Your task to perform on an android device: Show me some nice wallpapers for my desktop Image 0: 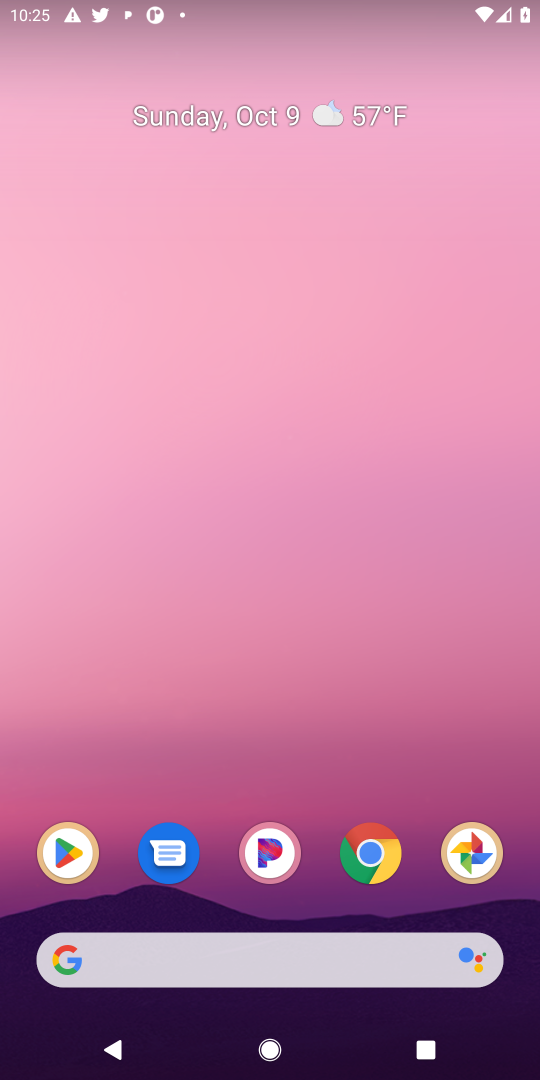
Step 0: click (375, 861)
Your task to perform on an android device: Show me some nice wallpapers for my desktop Image 1: 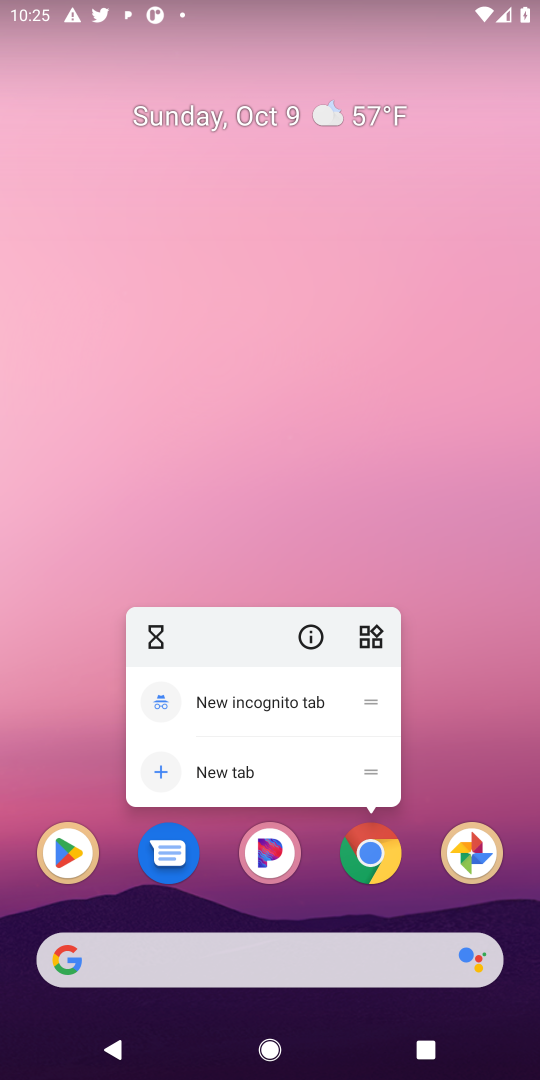
Step 1: click (312, 949)
Your task to perform on an android device: Show me some nice wallpapers for my desktop Image 2: 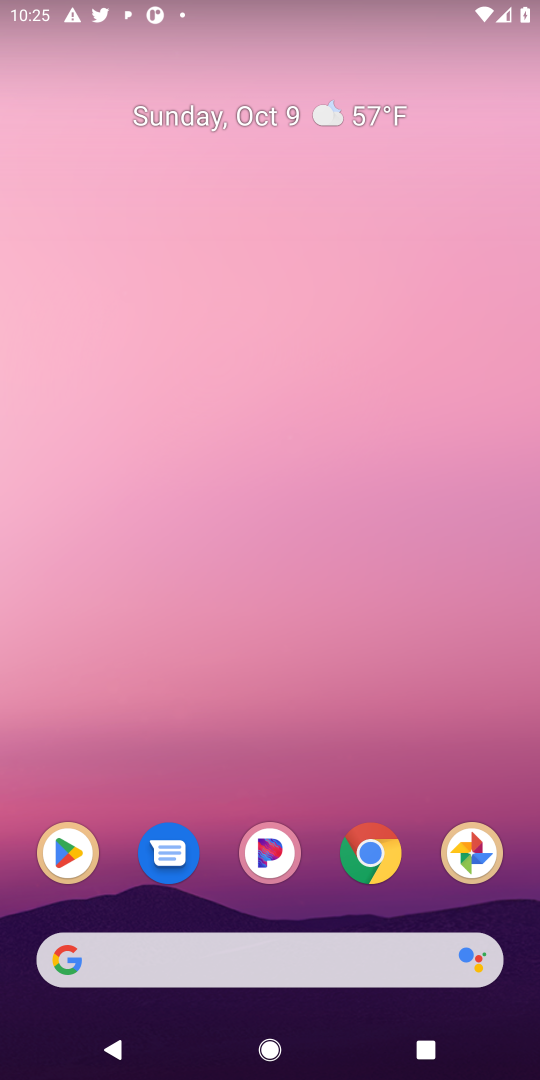
Step 2: click (318, 949)
Your task to perform on an android device: Show me some nice wallpapers for my desktop Image 3: 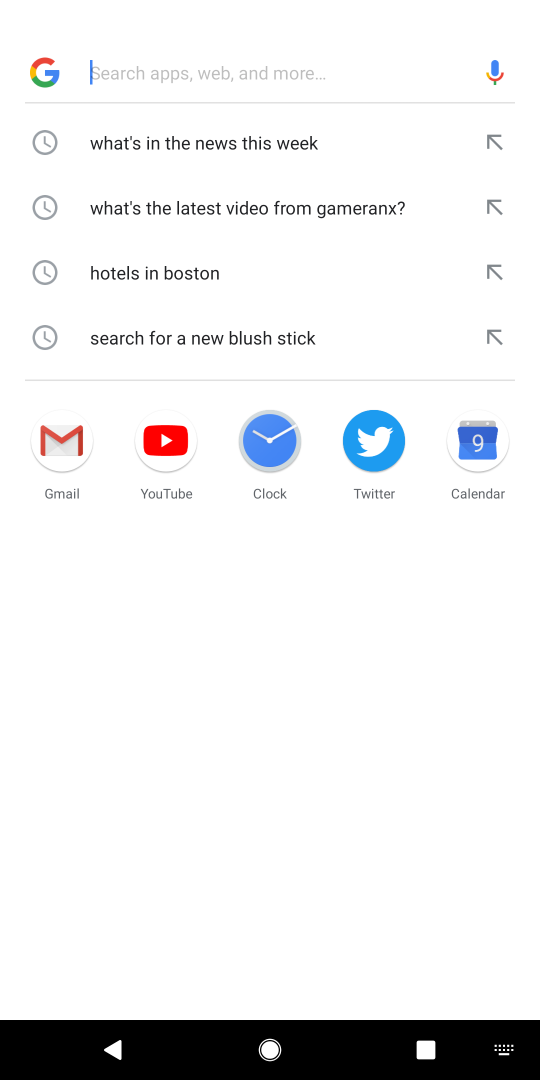
Step 3: type "Show me some nice wallpapers for my desktop"
Your task to perform on an android device: Show me some nice wallpapers for my desktop Image 4: 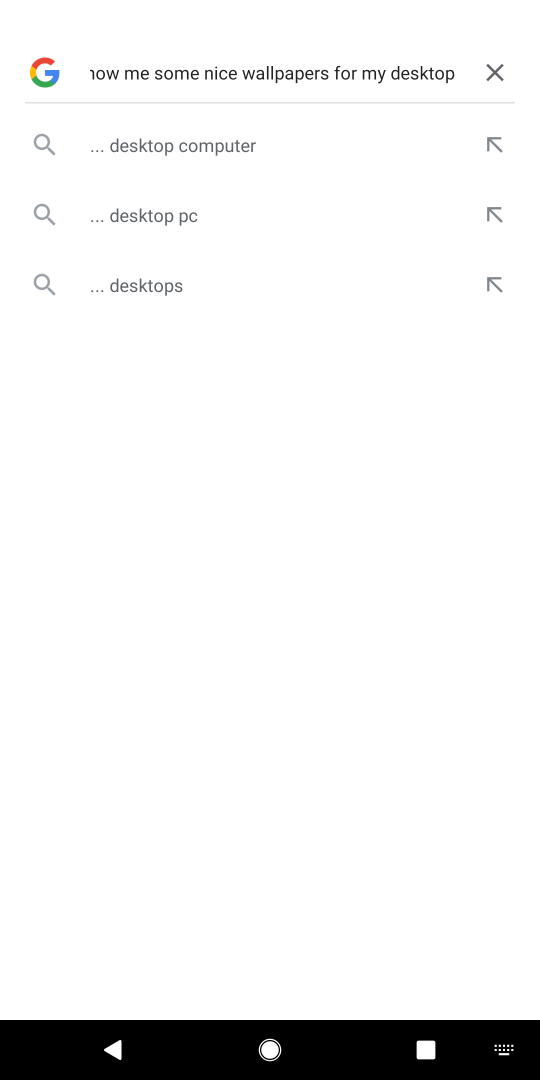
Step 4: type ""
Your task to perform on an android device: Show me some nice wallpapers for my desktop Image 5: 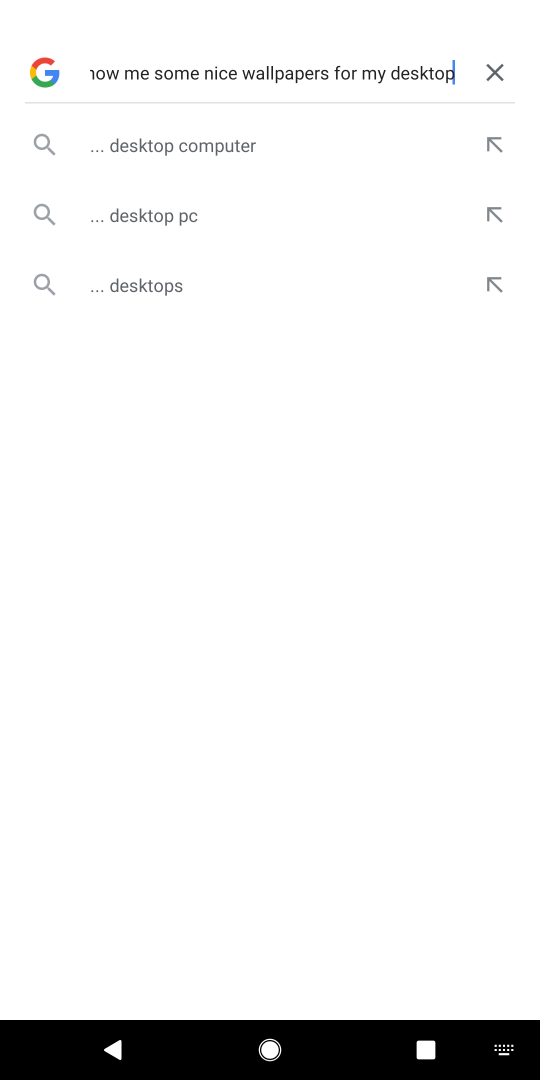
Step 5: press enter
Your task to perform on an android device: Show me some nice wallpapers for my desktop Image 6: 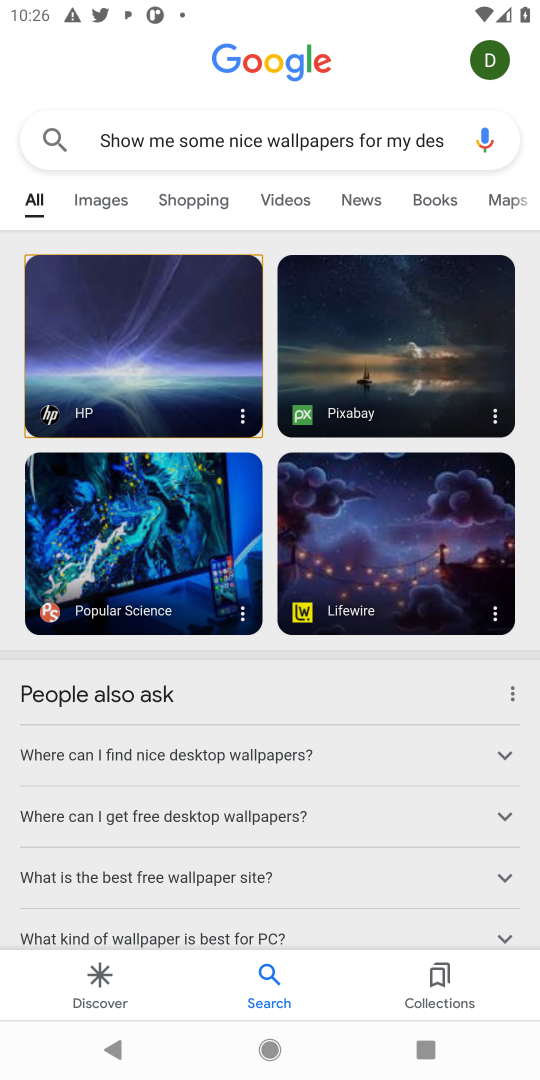
Step 6: click (218, 359)
Your task to perform on an android device: Show me some nice wallpapers for my desktop Image 7: 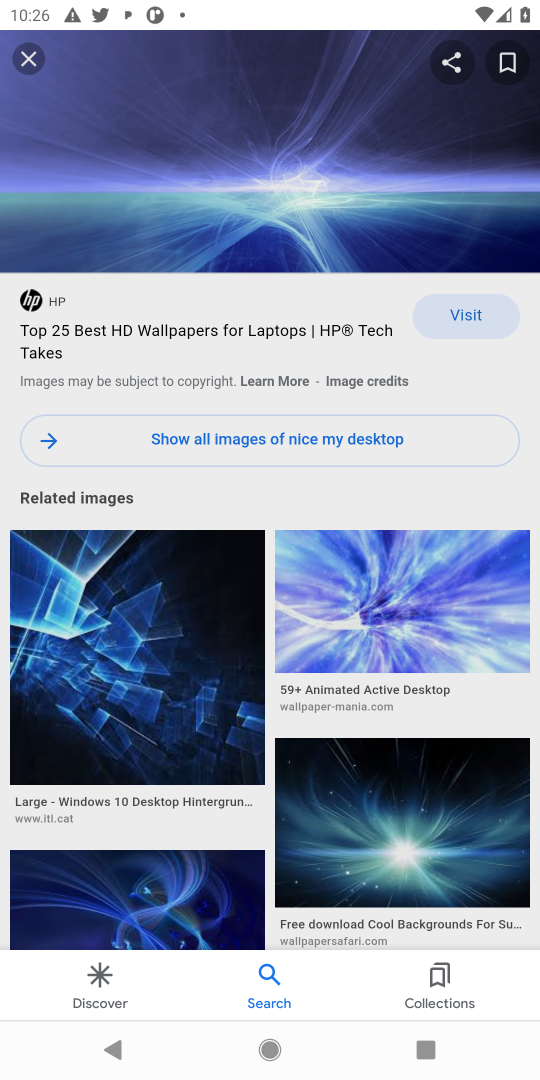
Step 7: click (279, 410)
Your task to perform on an android device: Show me some nice wallpapers for my desktop Image 8: 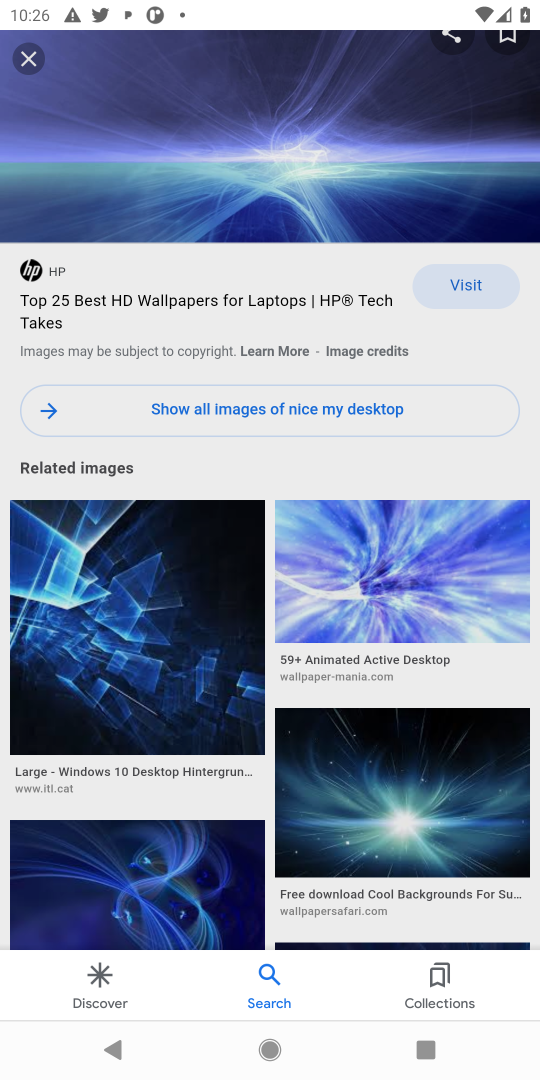
Step 8: click (185, 521)
Your task to perform on an android device: Show me some nice wallpapers for my desktop Image 9: 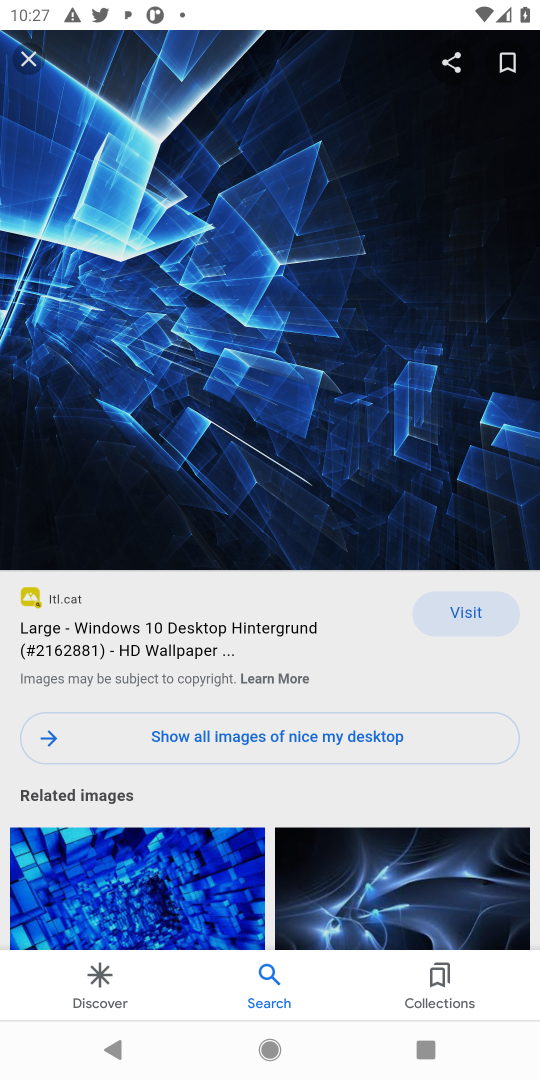
Step 9: drag from (330, 353) to (360, 168)
Your task to perform on an android device: Show me some nice wallpapers for my desktop Image 10: 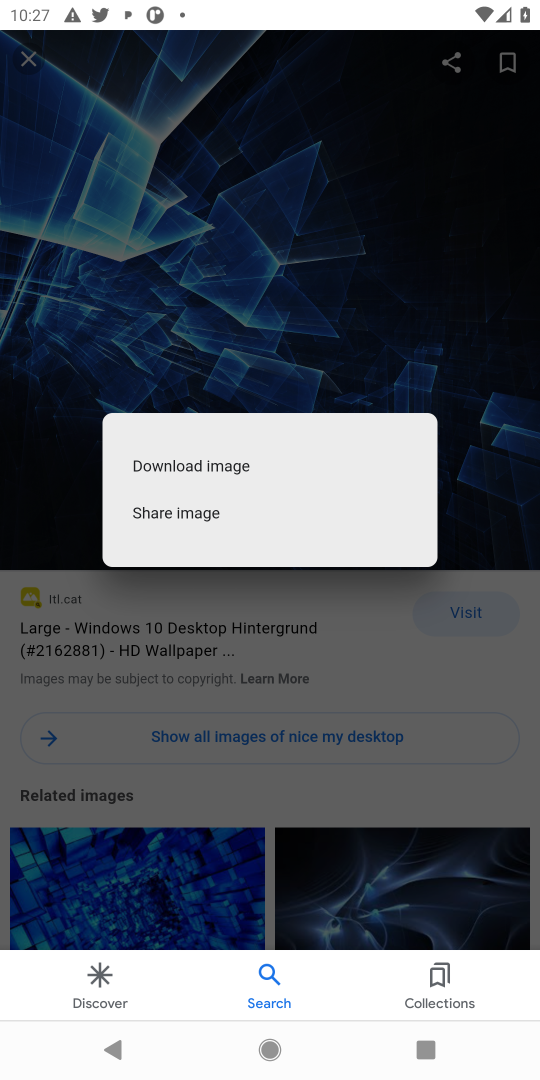
Step 10: drag from (393, 694) to (364, 289)
Your task to perform on an android device: Show me some nice wallpapers for my desktop Image 11: 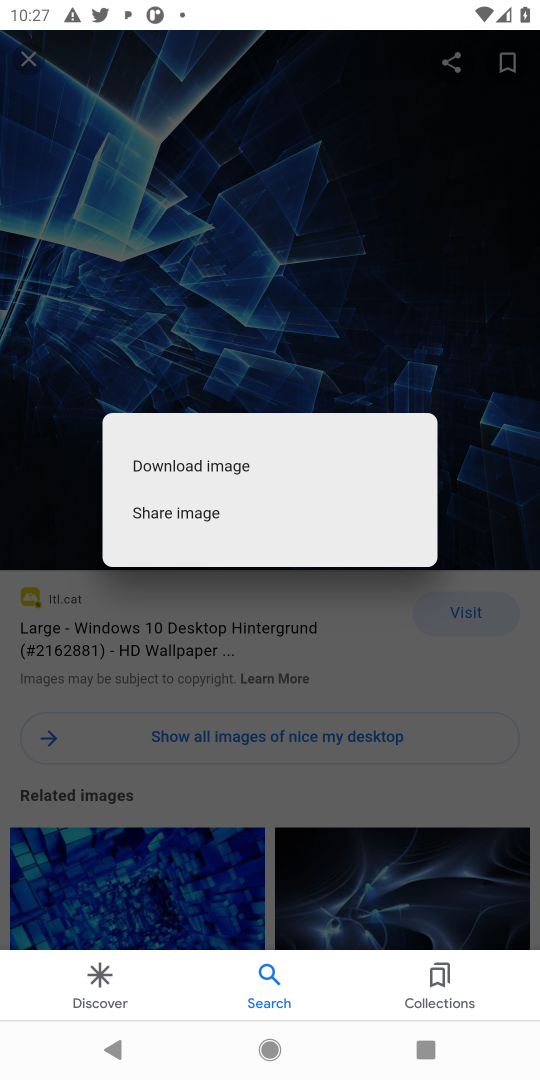
Step 11: click (364, 289)
Your task to perform on an android device: Show me some nice wallpapers for my desktop Image 12: 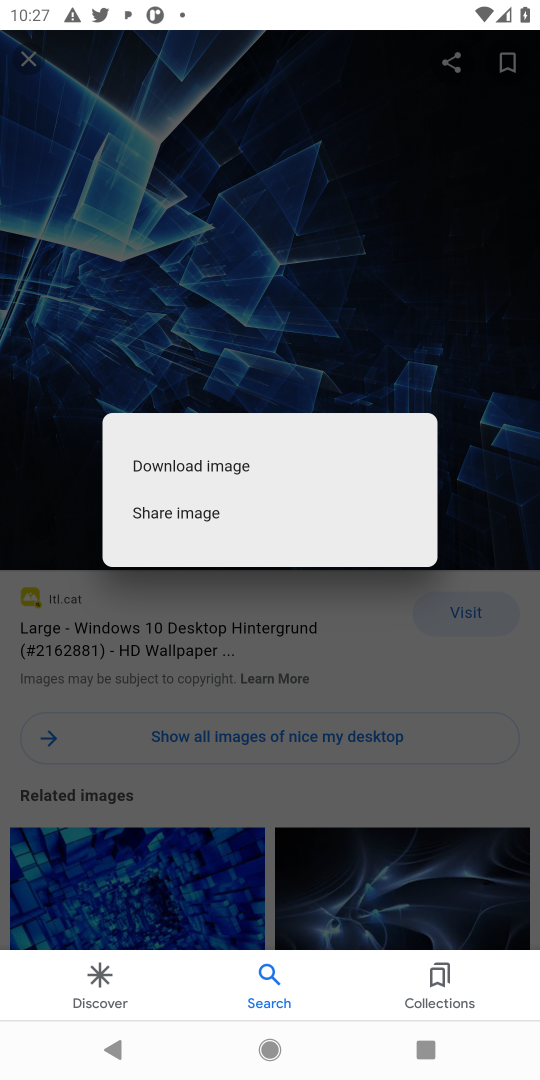
Step 12: click (364, 289)
Your task to perform on an android device: Show me some nice wallpapers for my desktop Image 13: 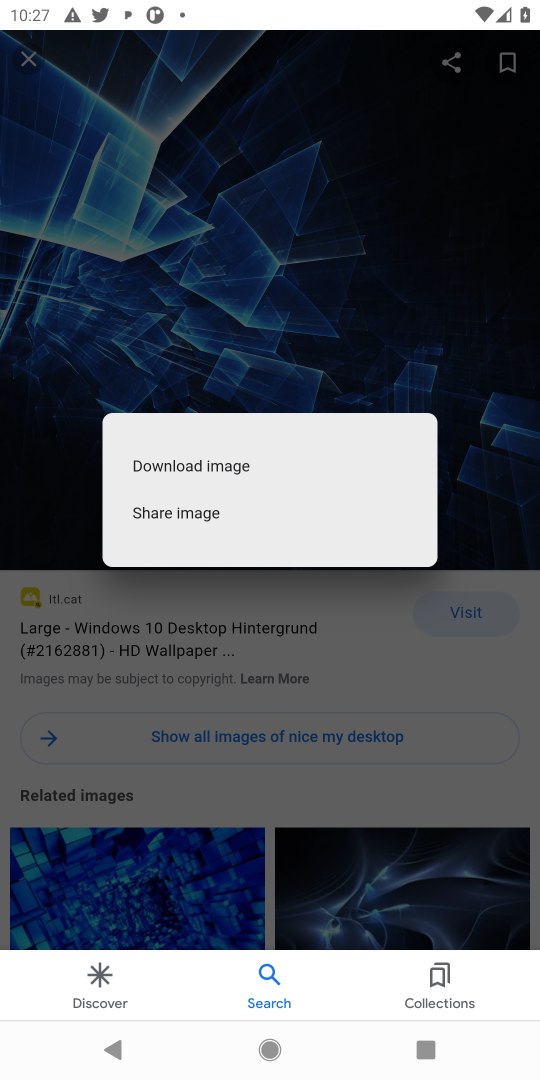
Step 13: click (426, 308)
Your task to perform on an android device: Show me some nice wallpapers for my desktop Image 14: 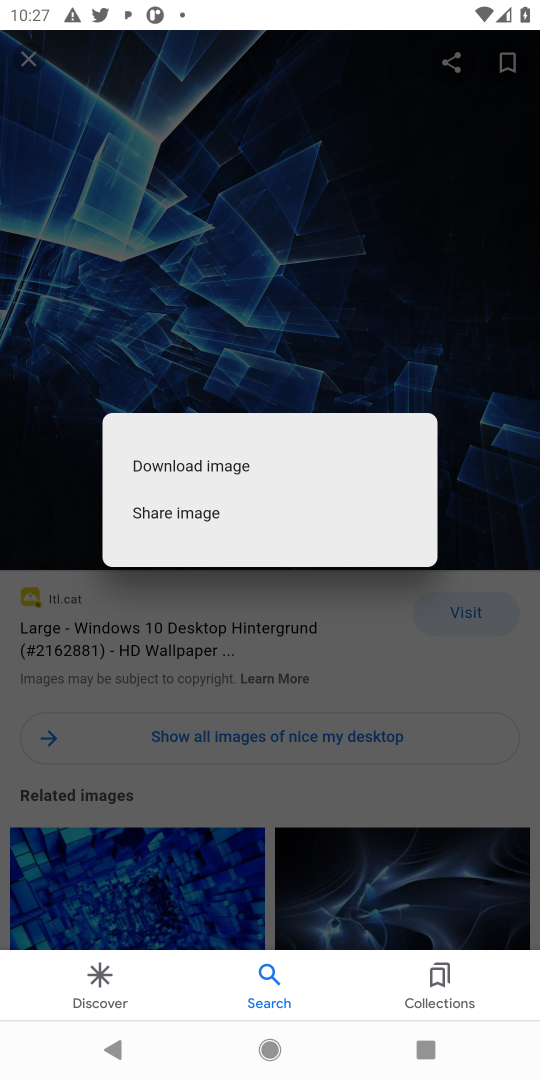
Step 14: press back button
Your task to perform on an android device: Show me some nice wallpapers for my desktop Image 15: 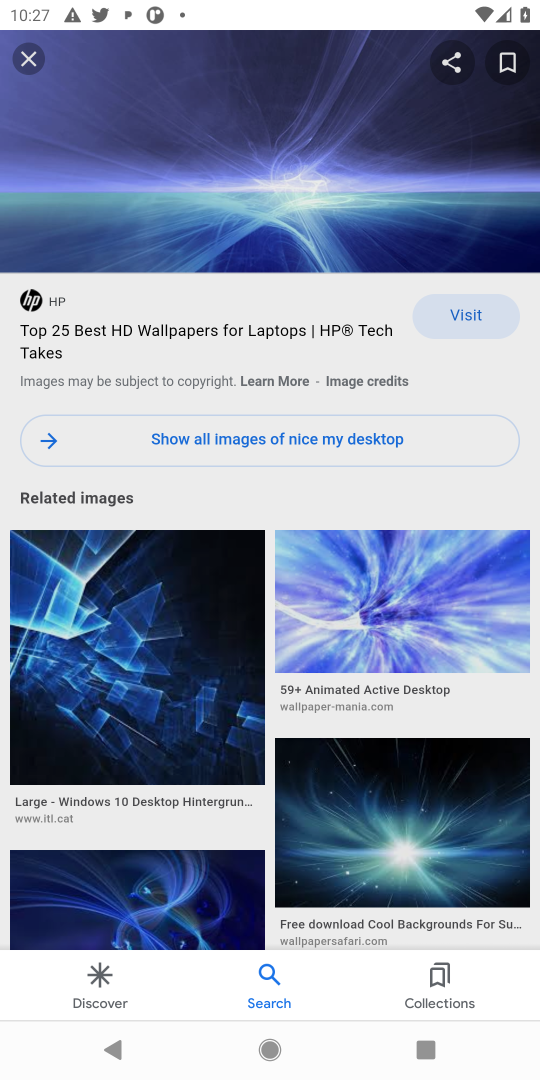
Step 15: click (17, 56)
Your task to perform on an android device: Show me some nice wallpapers for my desktop Image 16: 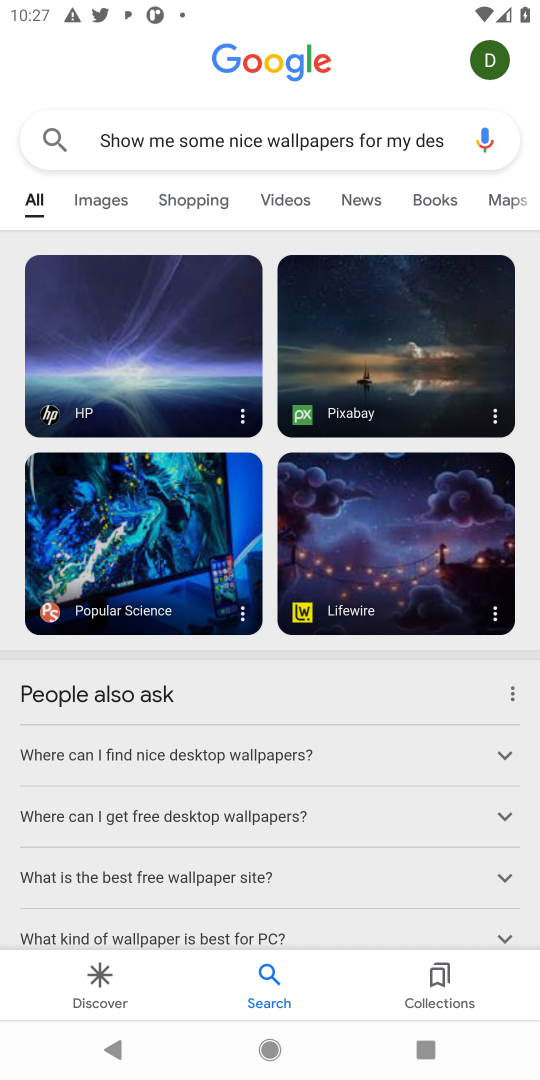
Step 16: drag from (42, 583) to (111, 267)
Your task to perform on an android device: Show me some nice wallpapers for my desktop Image 17: 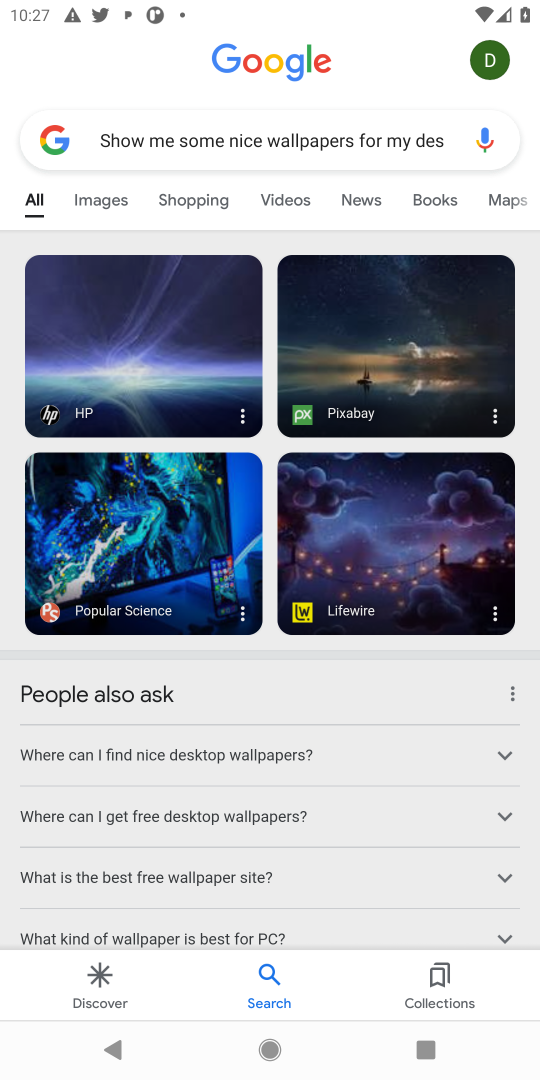
Step 17: click (166, 484)
Your task to perform on an android device: Show me some nice wallpapers for my desktop Image 18: 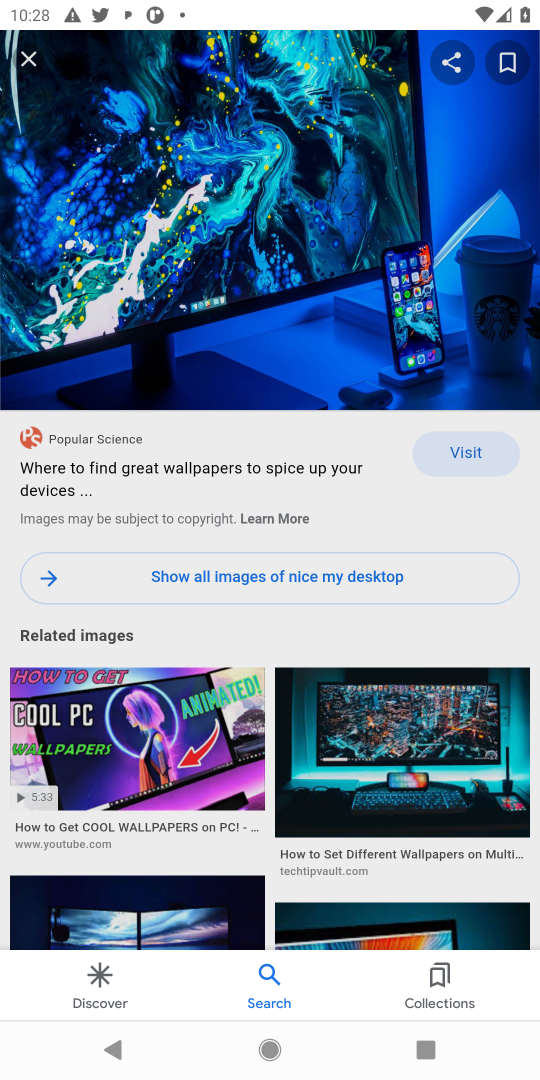
Step 18: drag from (118, 753) to (191, 278)
Your task to perform on an android device: Show me some nice wallpapers for my desktop Image 19: 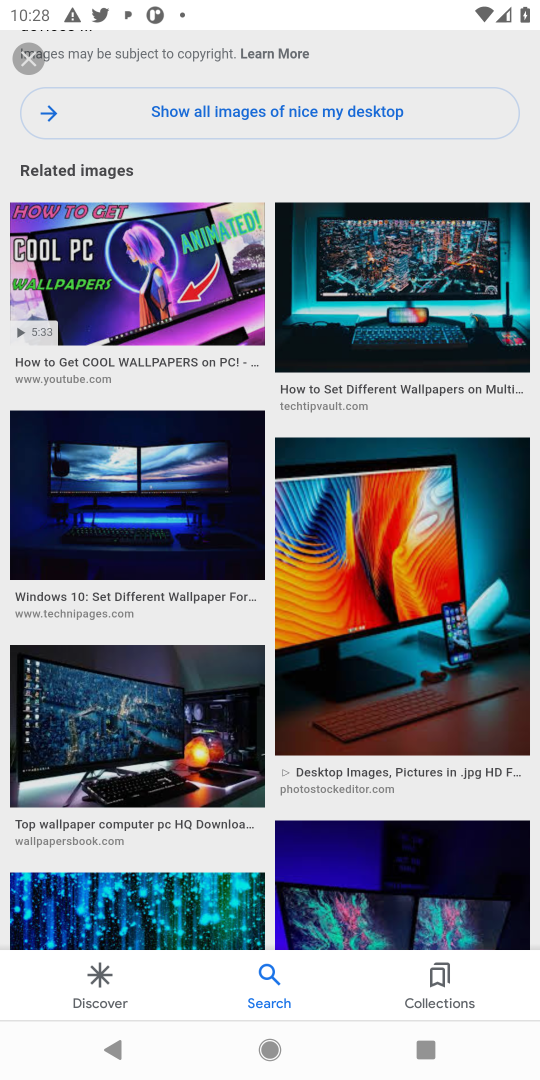
Step 19: drag from (205, 549) to (189, 187)
Your task to perform on an android device: Show me some nice wallpapers for my desktop Image 20: 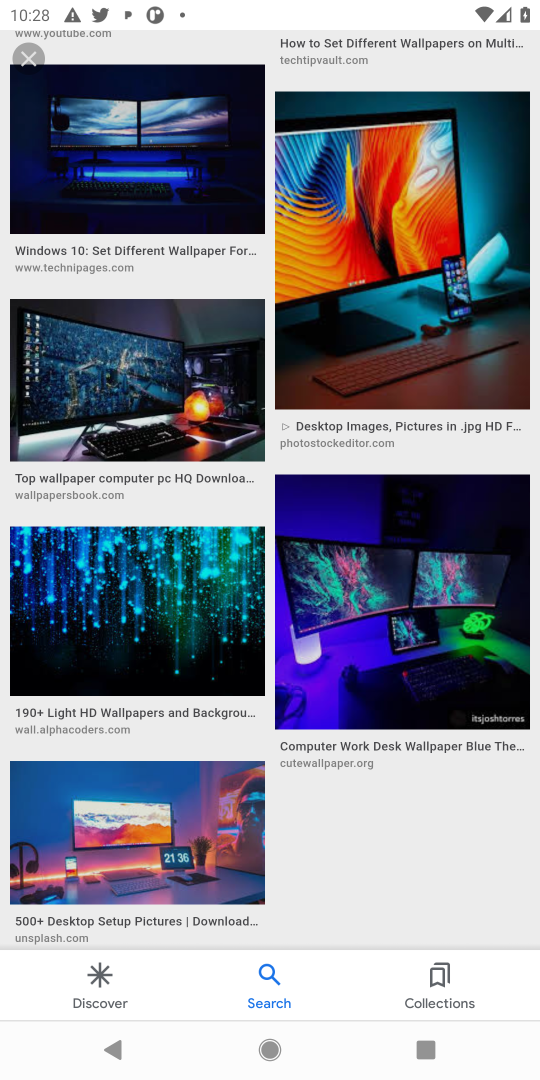
Step 20: drag from (194, 396) to (229, 156)
Your task to perform on an android device: Show me some nice wallpapers for my desktop Image 21: 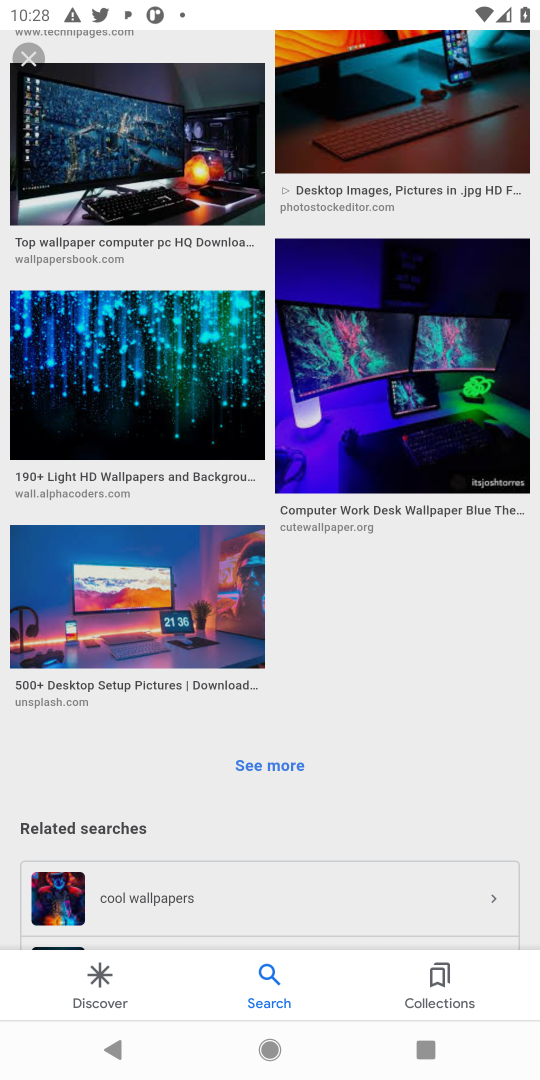
Step 21: click (392, 114)
Your task to perform on an android device: Show me some nice wallpapers for my desktop Image 22: 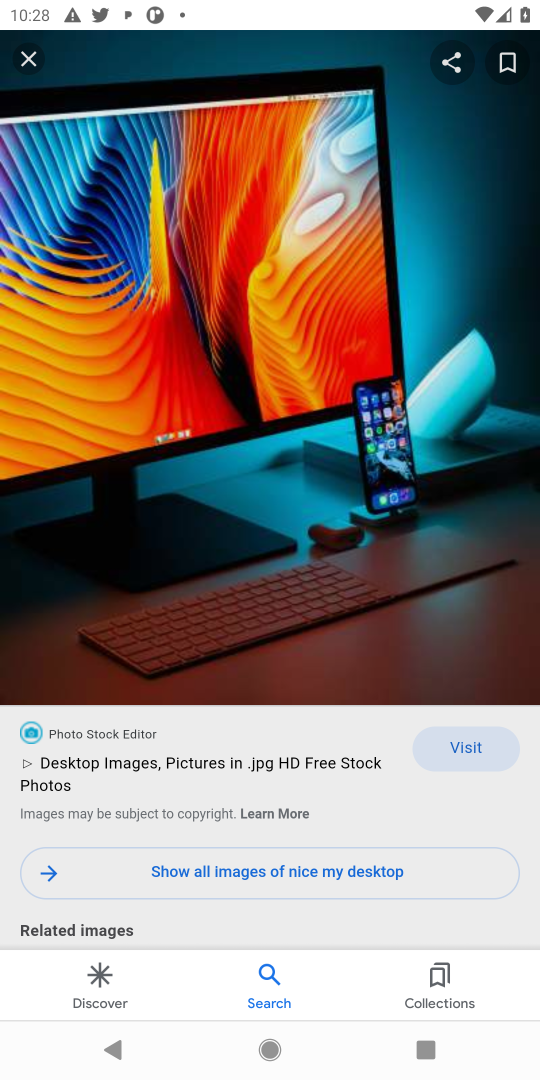
Step 22: task complete